Your task to perform on an android device: stop showing notifications on the lock screen Image 0: 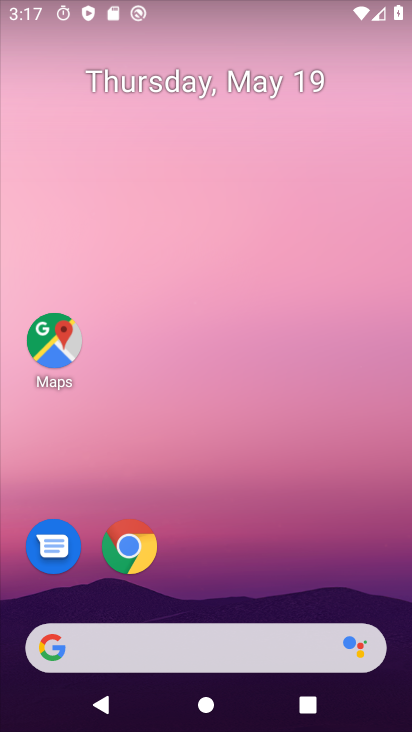
Step 0: press home button
Your task to perform on an android device: stop showing notifications on the lock screen Image 1: 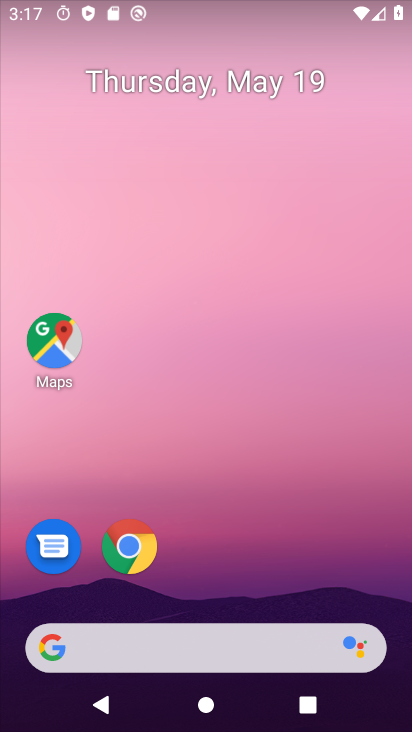
Step 1: drag from (215, 597) to (270, 202)
Your task to perform on an android device: stop showing notifications on the lock screen Image 2: 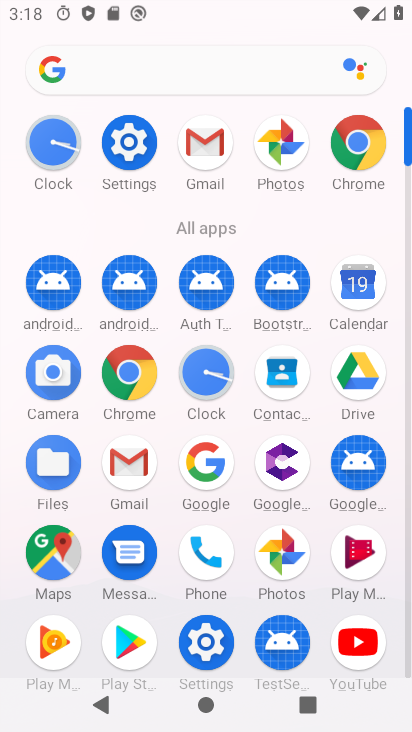
Step 2: click (203, 636)
Your task to perform on an android device: stop showing notifications on the lock screen Image 3: 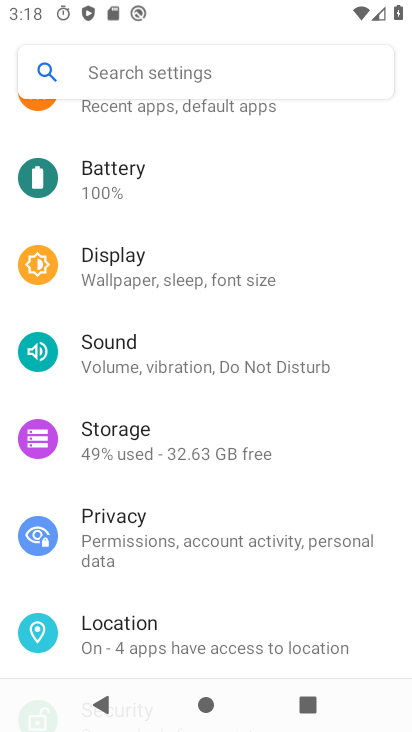
Step 3: drag from (204, 626) to (219, 668)
Your task to perform on an android device: stop showing notifications on the lock screen Image 4: 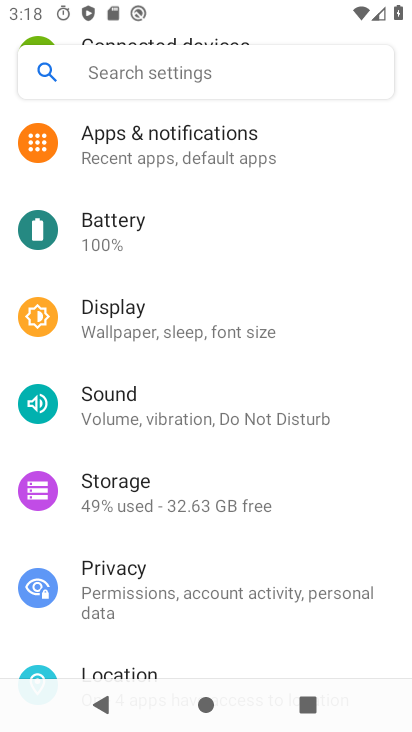
Step 4: click (265, 139)
Your task to perform on an android device: stop showing notifications on the lock screen Image 5: 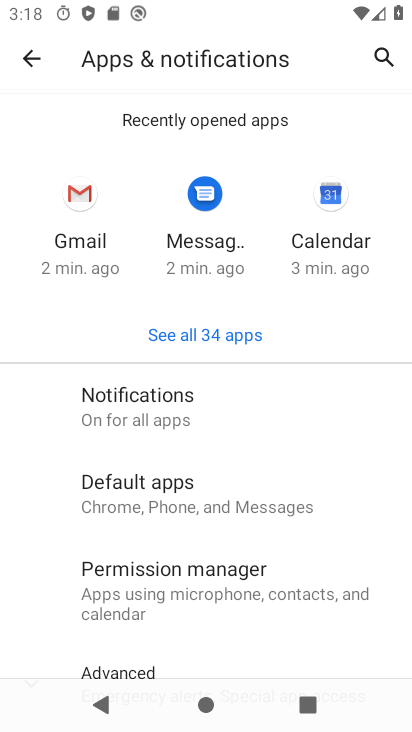
Step 5: click (204, 406)
Your task to perform on an android device: stop showing notifications on the lock screen Image 6: 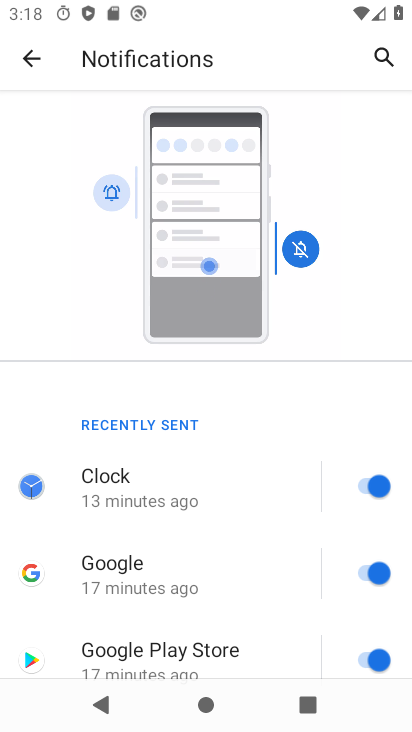
Step 6: drag from (255, 647) to (265, 159)
Your task to perform on an android device: stop showing notifications on the lock screen Image 7: 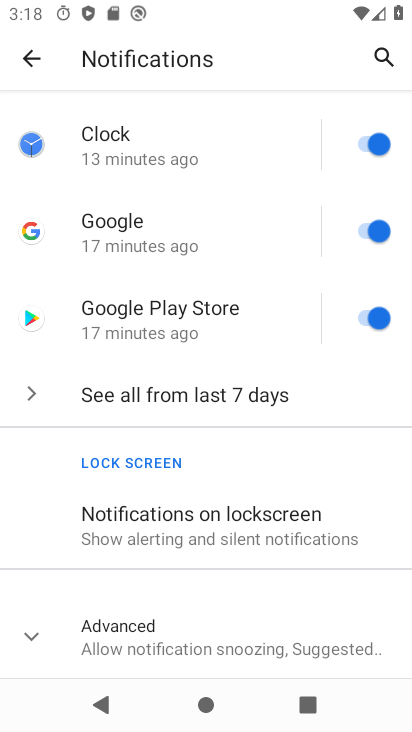
Step 7: click (60, 523)
Your task to perform on an android device: stop showing notifications on the lock screen Image 8: 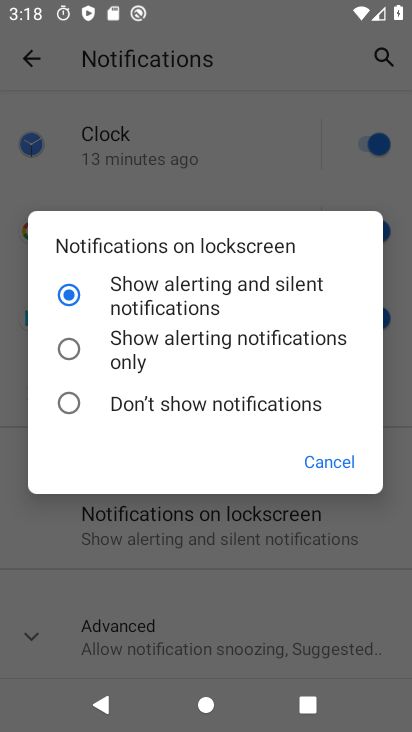
Step 8: click (73, 399)
Your task to perform on an android device: stop showing notifications on the lock screen Image 9: 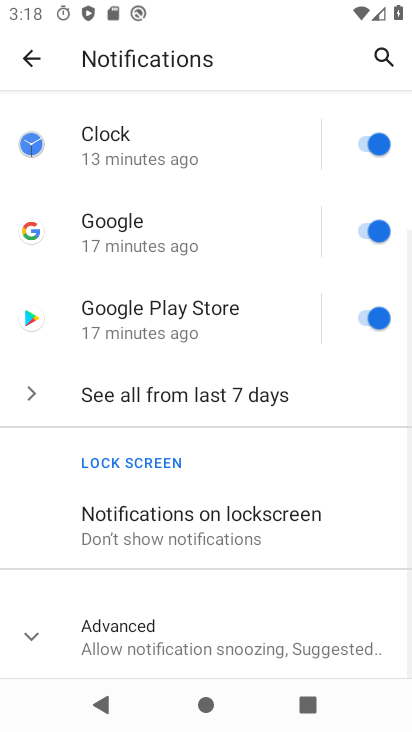
Step 9: task complete